Your task to perform on an android device: change the clock display to digital Image 0: 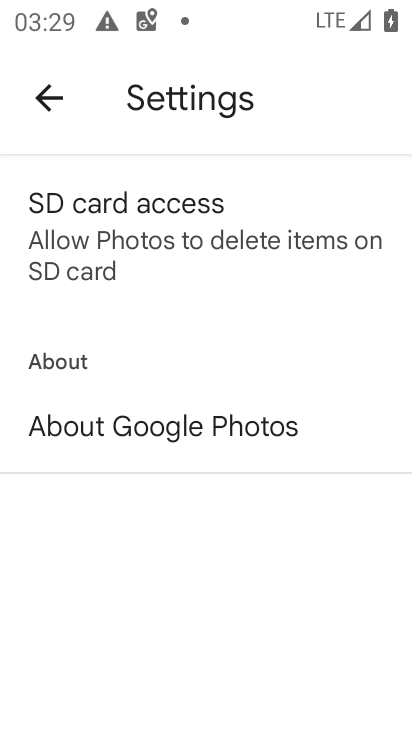
Step 0: press home button
Your task to perform on an android device: change the clock display to digital Image 1: 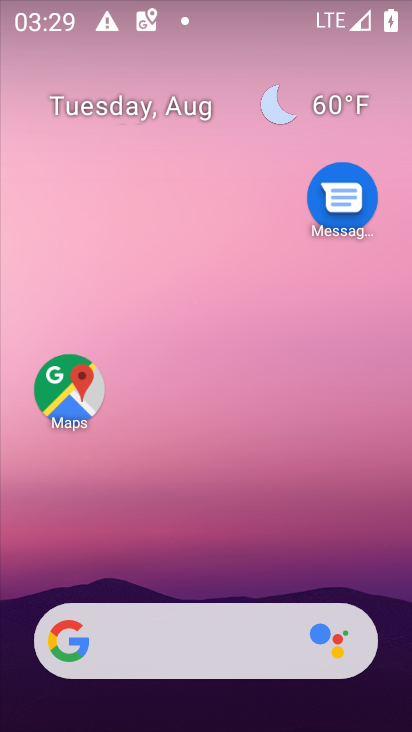
Step 1: drag from (217, 593) to (211, 110)
Your task to perform on an android device: change the clock display to digital Image 2: 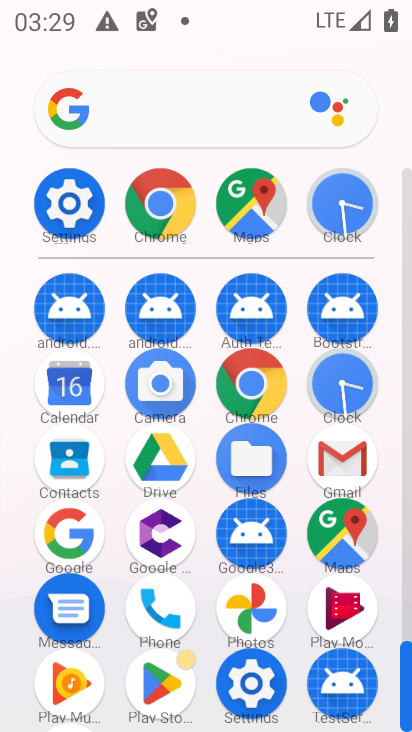
Step 2: click (56, 206)
Your task to perform on an android device: change the clock display to digital Image 3: 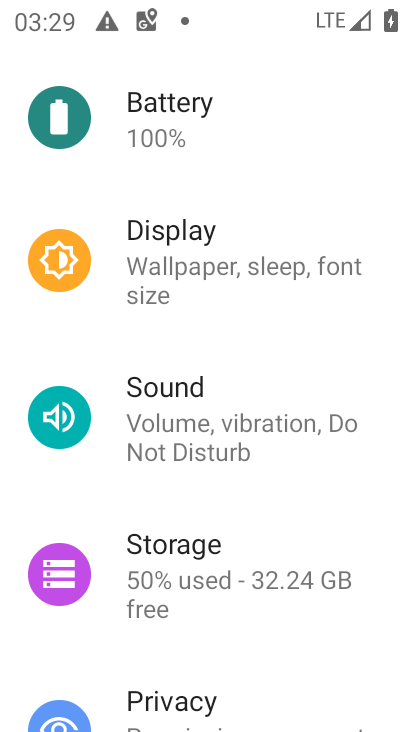
Step 3: press home button
Your task to perform on an android device: change the clock display to digital Image 4: 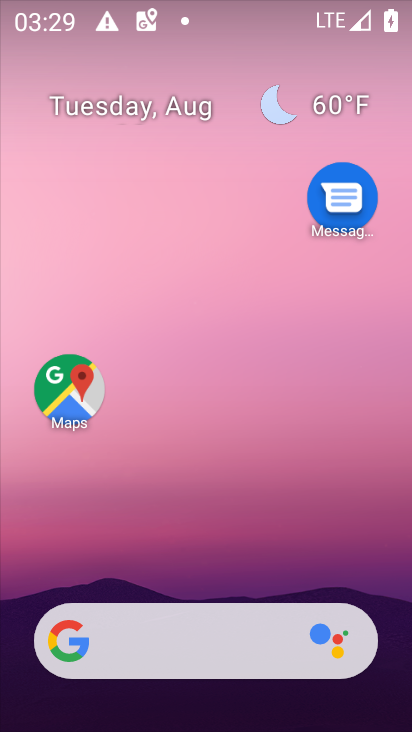
Step 4: drag from (223, 562) to (208, 15)
Your task to perform on an android device: change the clock display to digital Image 5: 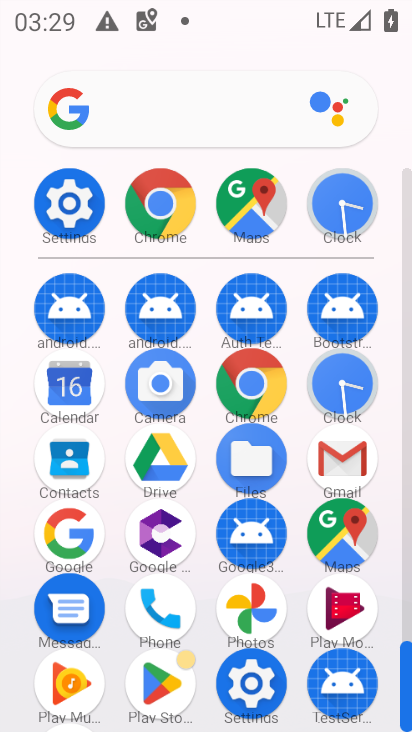
Step 5: click (325, 228)
Your task to perform on an android device: change the clock display to digital Image 6: 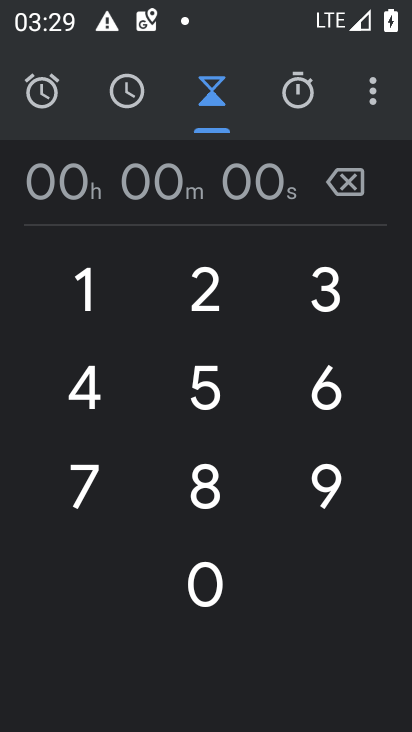
Step 6: click (384, 97)
Your task to perform on an android device: change the clock display to digital Image 7: 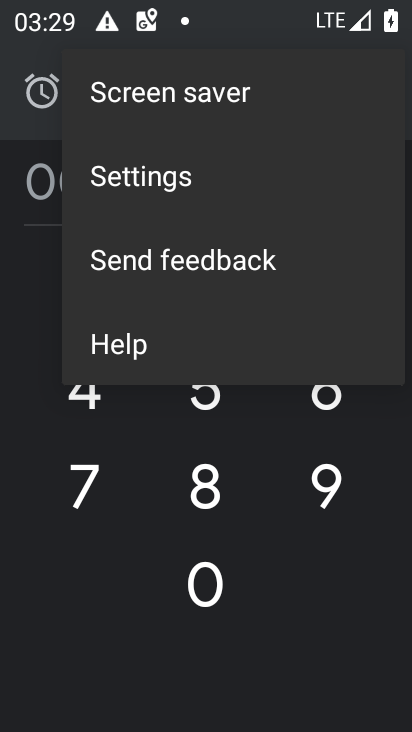
Step 7: click (261, 184)
Your task to perform on an android device: change the clock display to digital Image 8: 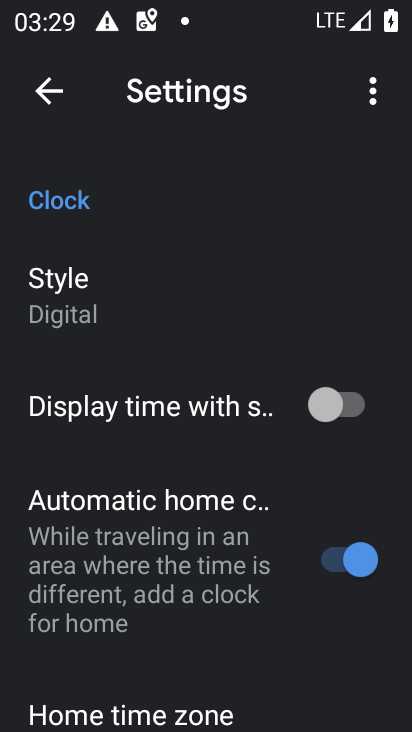
Step 8: task complete